Your task to perform on an android device: find which apps use the phone's location Image 0: 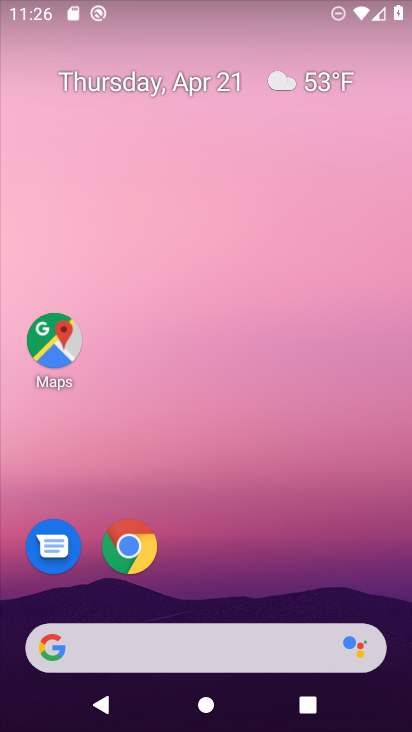
Step 0: drag from (202, 628) to (224, 164)
Your task to perform on an android device: find which apps use the phone's location Image 1: 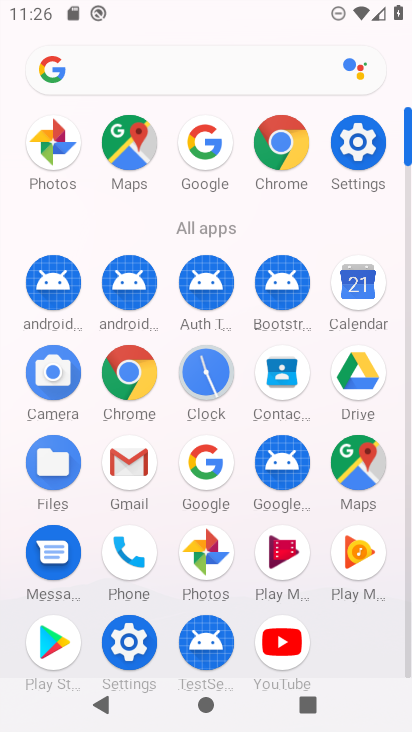
Step 1: click (354, 140)
Your task to perform on an android device: find which apps use the phone's location Image 2: 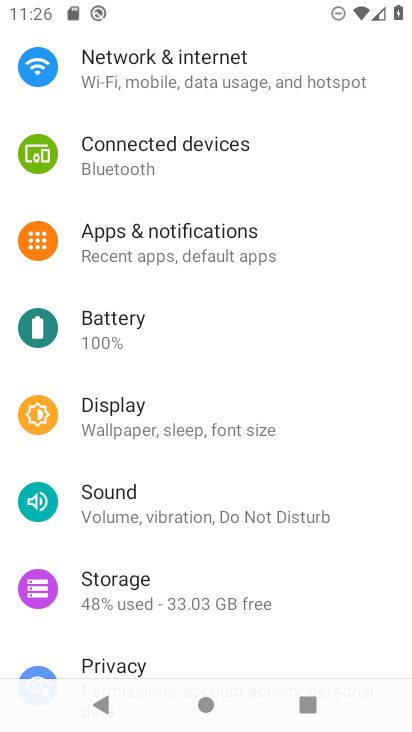
Step 2: drag from (172, 661) to (230, 231)
Your task to perform on an android device: find which apps use the phone's location Image 3: 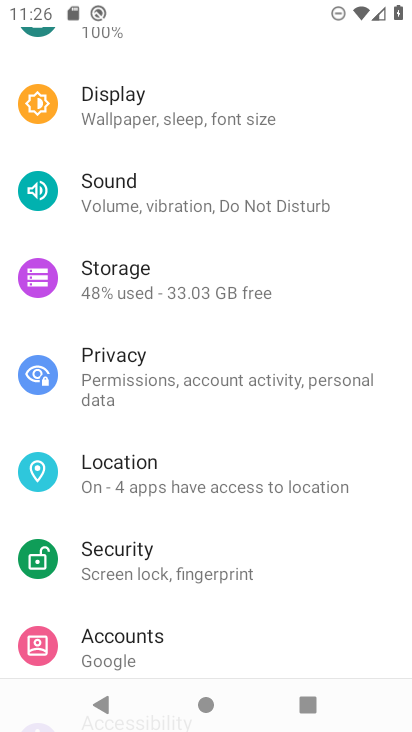
Step 3: click (163, 484)
Your task to perform on an android device: find which apps use the phone's location Image 4: 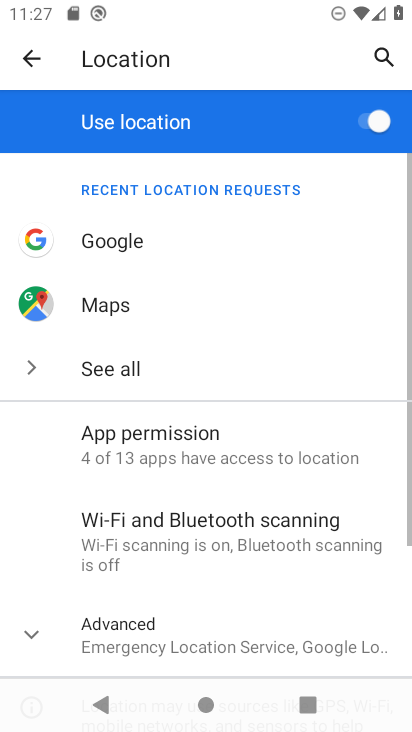
Step 4: click (151, 448)
Your task to perform on an android device: find which apps use the phone's location Image 5: 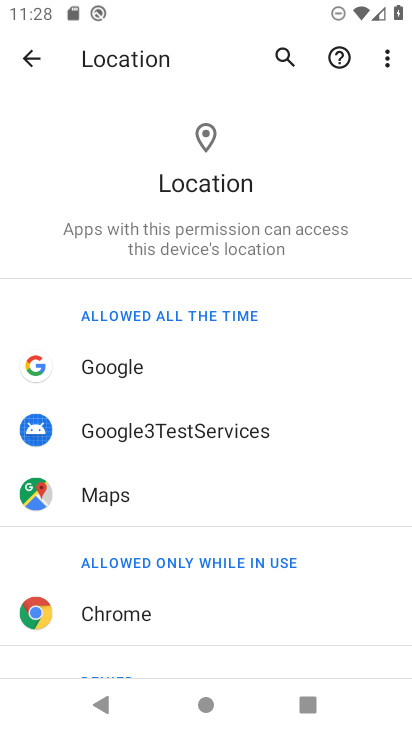
Step 5: task complete